Your task to perform on an android device: Turn on the flashlight Image 0: 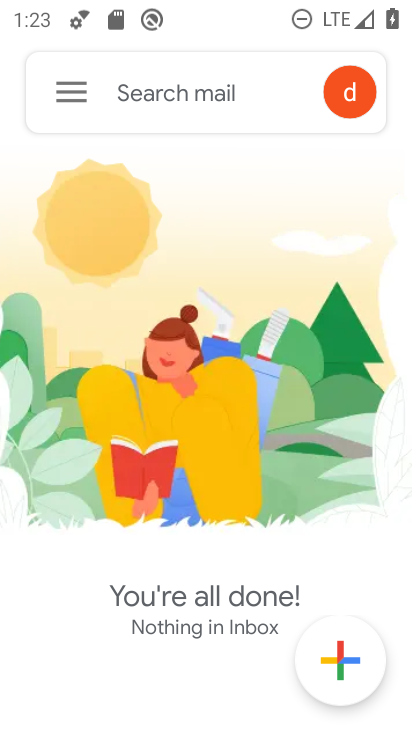
Step 0: press home button
Your task to perform on an android device: Turn on the flashlight Image 1: 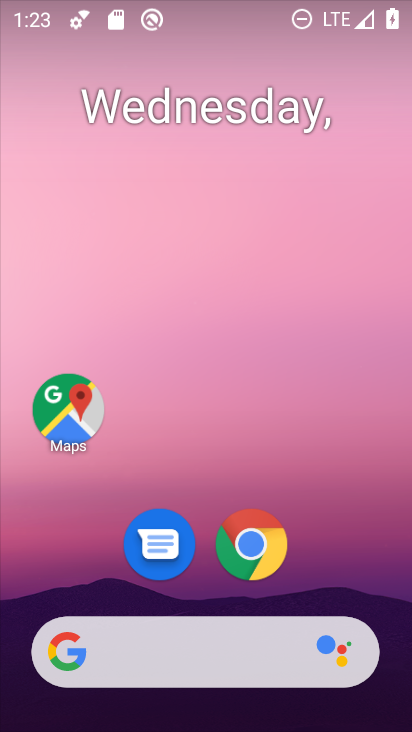
Step 1: drag from (314, 590) to (298, 17)
Your task to perform on an android device: Turn on the flashlight Image 2: 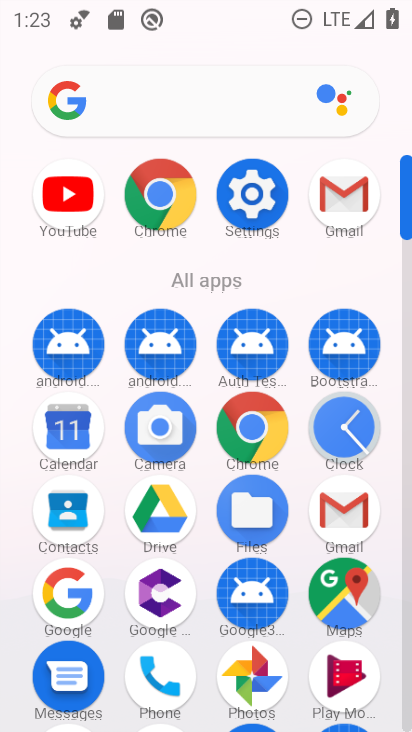
Step 2: click (261, 195)
Your task to perform on an android device: Turn on the flashlight Image 3: 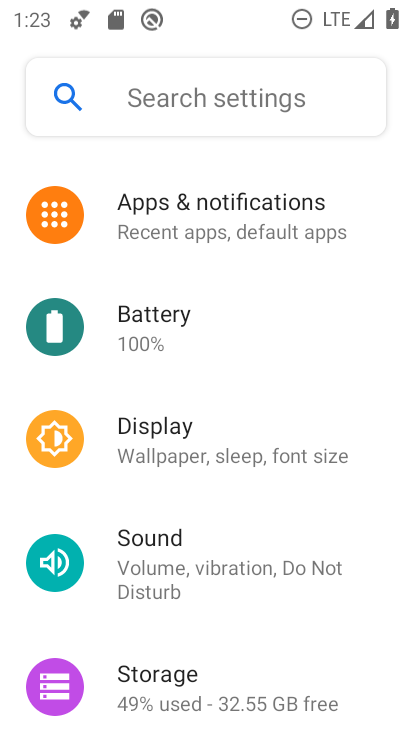
Step 3: task complete